Your task to perform on an android device: open chrome and create a bookmark for the current page Image 0: 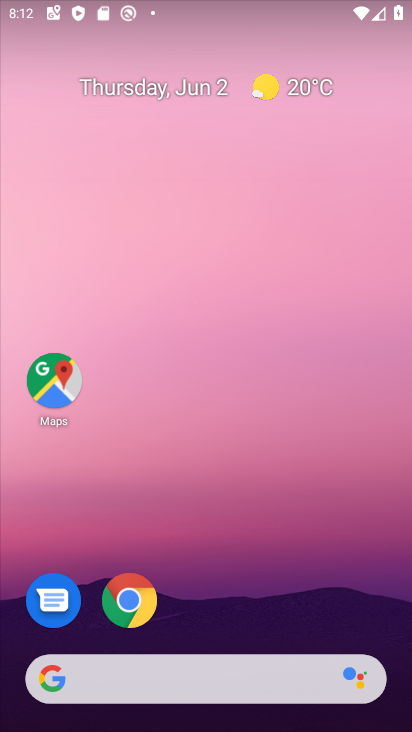
Step 0: drag from (356, 624) to (374, 213)
Your task to perform on an android device: open chrome and create a bookmark for the current page Image 1: 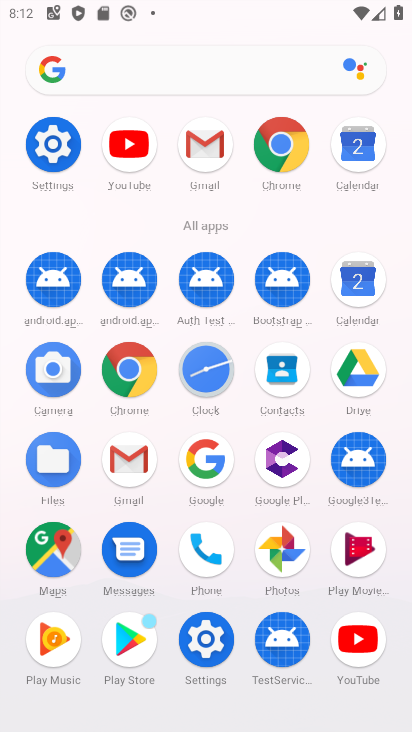
Step 1: click (141, 380)
Your task to perform on an android device: open chrome and create a bookmark for the current page Image 2: 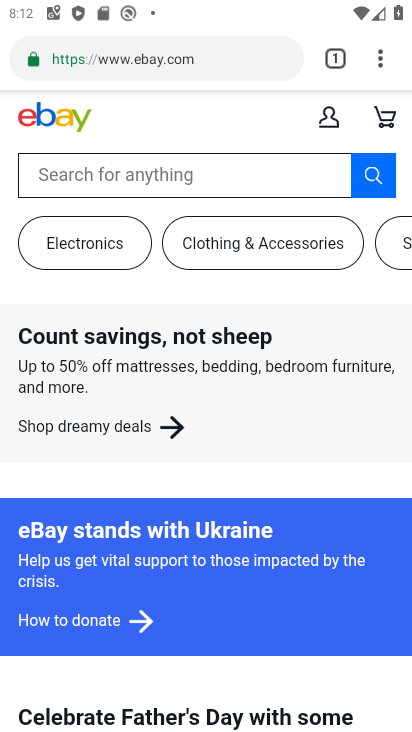
Step 2: click (377, 65)
Your task to perform on an android device: open chrome and create a bookmark for the current page Image 3: 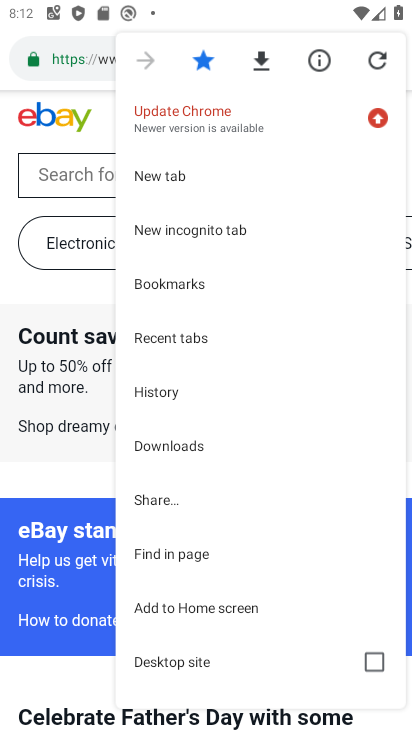
Step 3: task complete